Your task to perform on an android device: open a new tab in the chrome app Image 0: 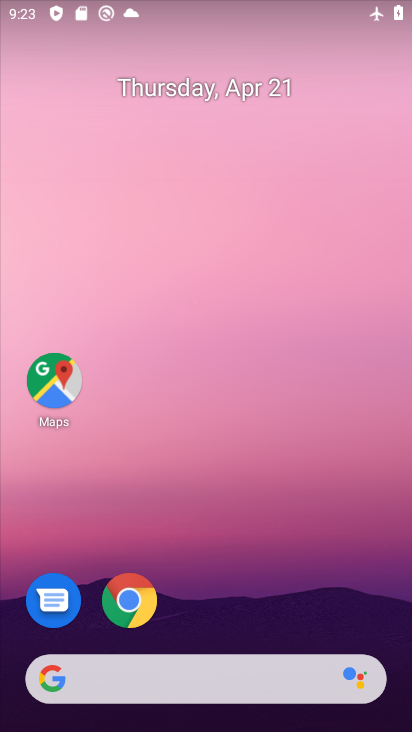
Step 0: click (130, 598)
Your task to perform on an android device: open a new tab in the chrome app Image 1: 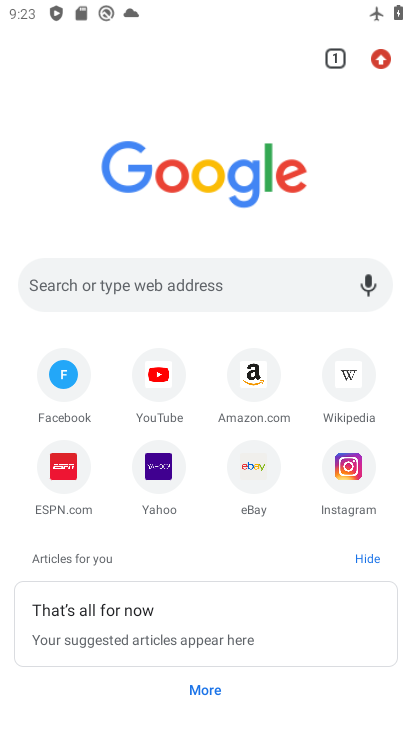
Step 1: click (334, 51)
Your task to perform on an android device: open a new tab in the chrome app Image 2: 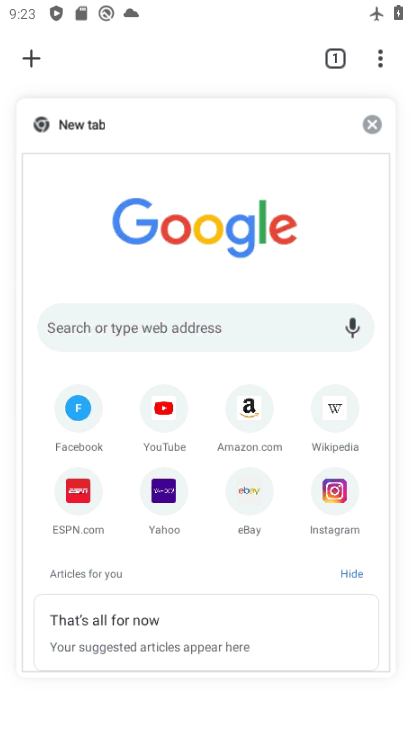
Step 2: click (34, 53)
Your task to perform on an android device: open a new tab in the chrome app Image 3: 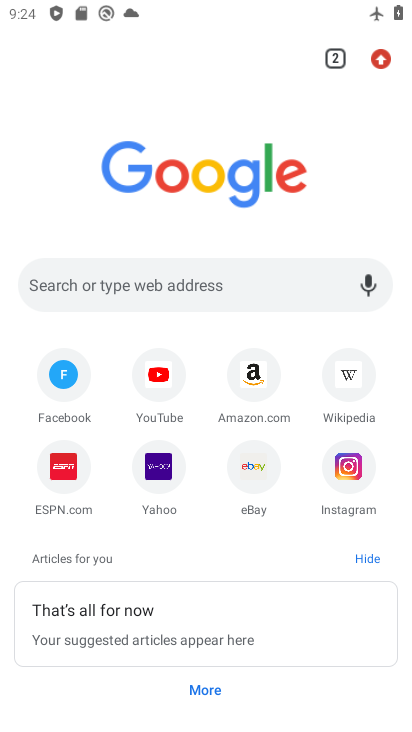
Step 3: task complete